Your task to perform on an android device: star an email in the gmail app Image 0: 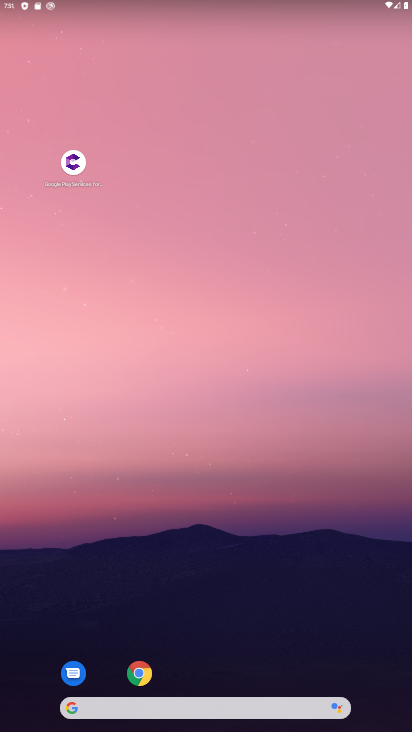
Step 0: drag from (182, 593) to (151, 15)
Your task to perform on an android device: star an email in the gmail app Image 1: 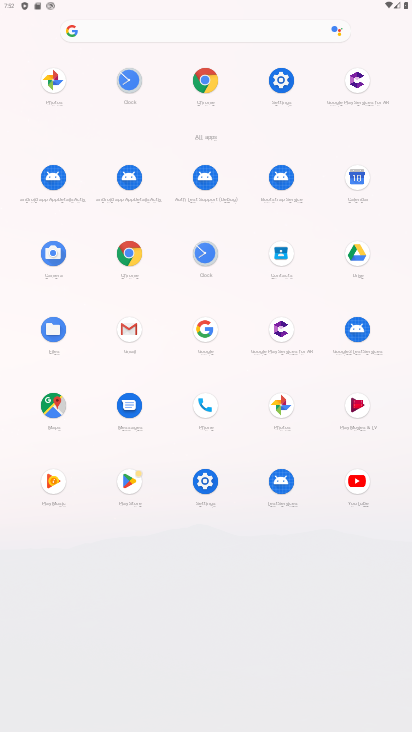
Step 1: click (130, 343)
Your task to perform on an android device: star an email in the gmail app Image 2: 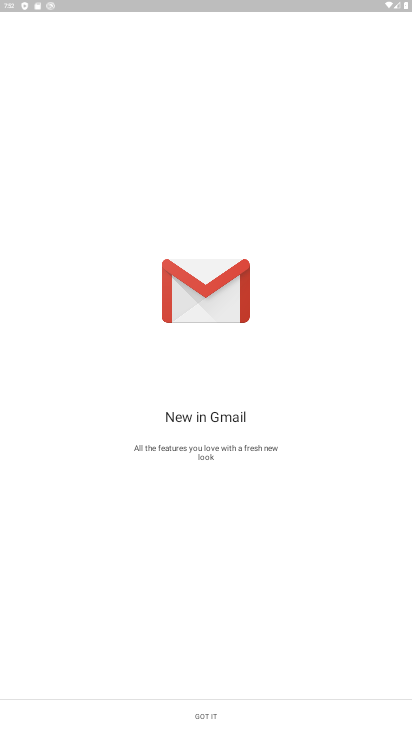
Step 2: click (205, 710)
Your task to perform on an android device: star an email in the gmail app Image 3: 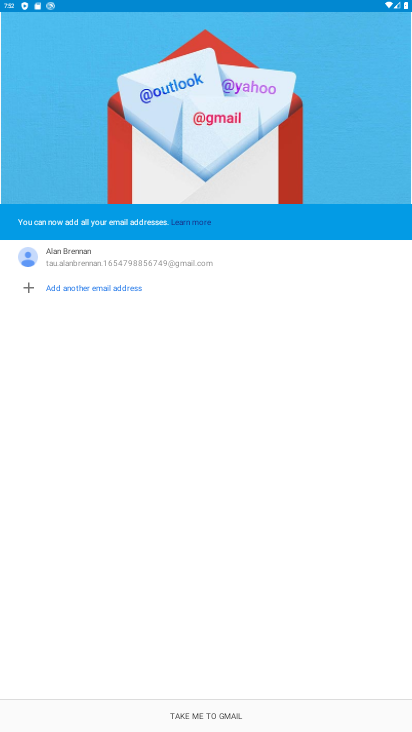
Step 3: click (205, 710)
Your task to perform on an android device: star an email in the gmail app Image 4: 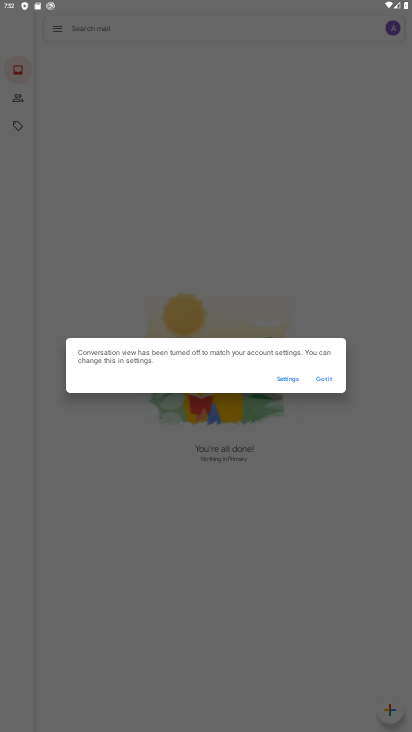
Step 4: click (318, 382)
Your task to perform on an android device: star an email in the gmail app Image 5: 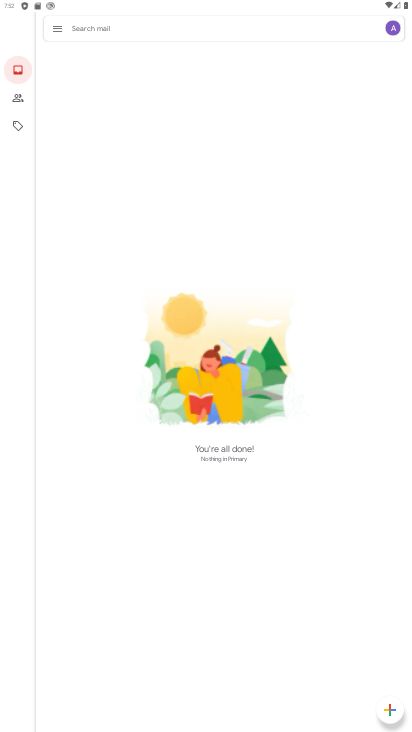
Step 5: click (54, 25)
Your task to perform on an android device: star an email in the gmail app Image 6: 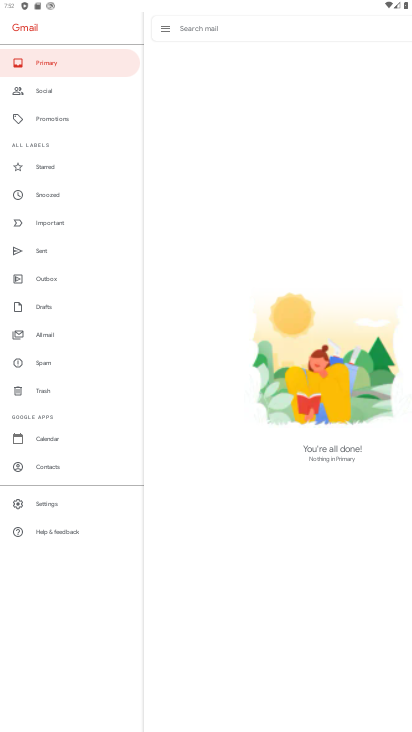
Step 6: click (37, 337)
Your task to perform on an android device: star an email in the gmail app Image 7: 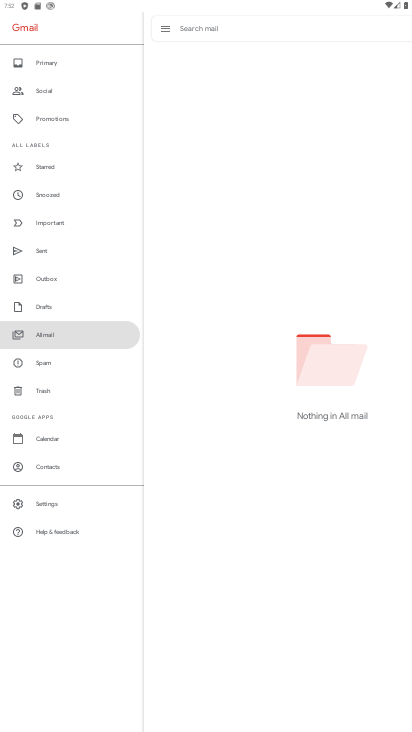
Step 7: task complete